Your task to perform on an android device: Open the map Image 0: 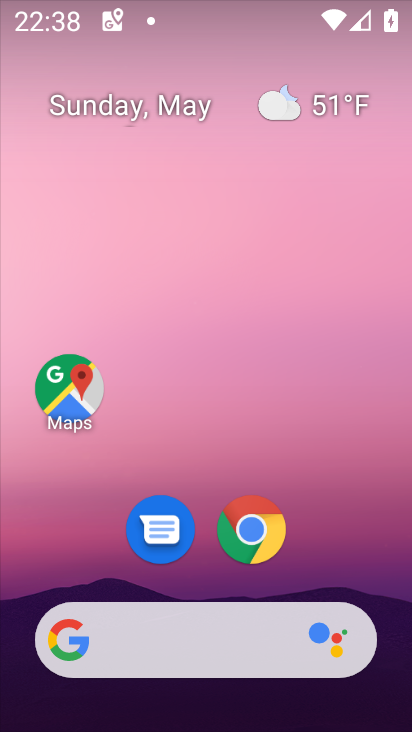
Step 0: drag from (225, 571) to (187, 88)
Your task to perform on an android device: Open the map Image 1: 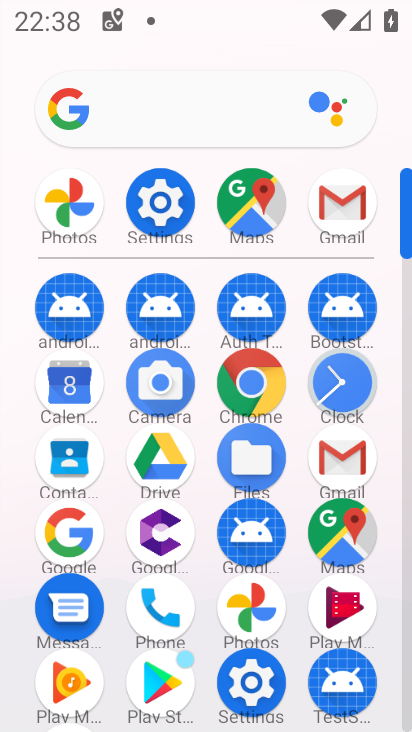
Step 1: click (338, 531)
Your task to perform on an android device: Open the map Image 2: 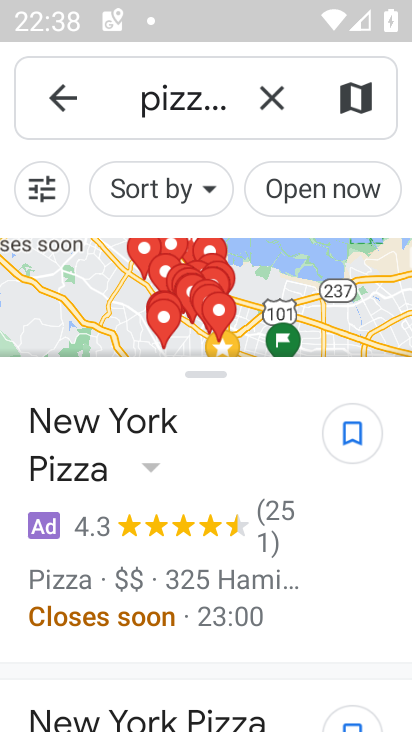
Step 2: task complete